Your task to perform on an android device: Open location settings Image 0: 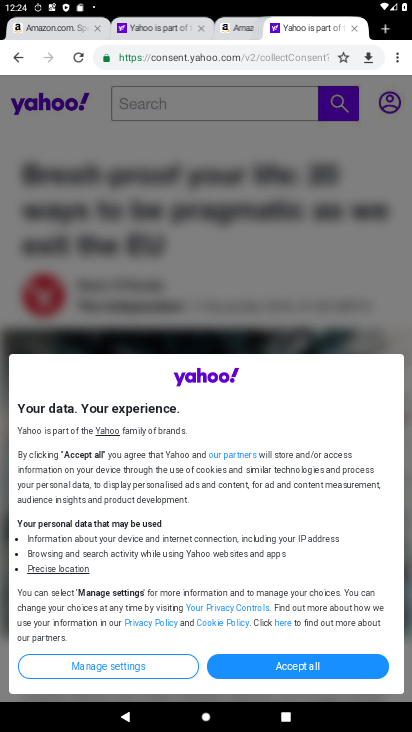
Step 0: press home button
Your task to perform on an android device: Open location settings Image 1: 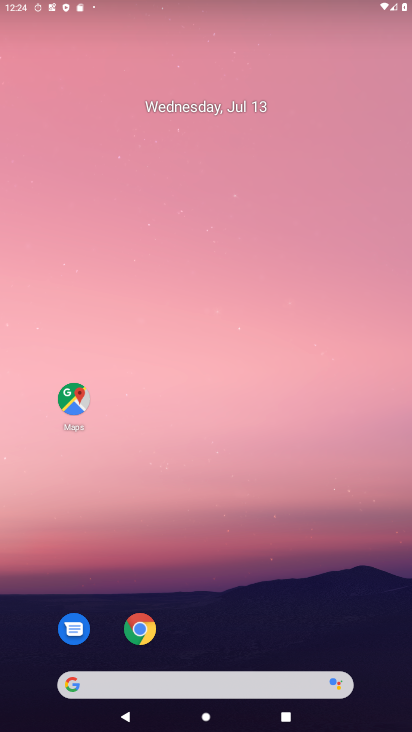
Step 1: drag from (201, 535) to (149, 100)
Your task to perform on an android device: Open location settings Image 2: 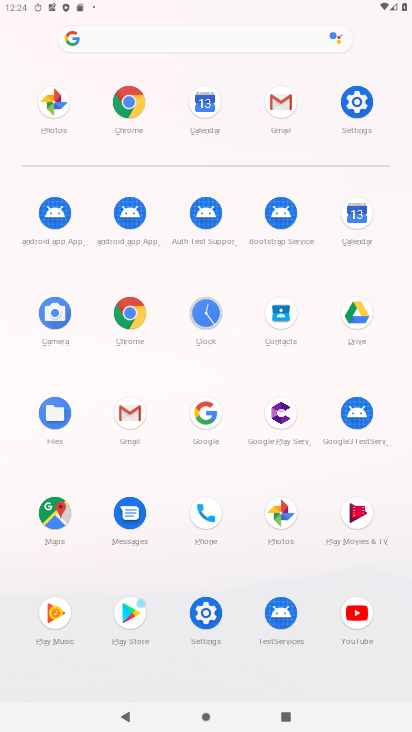
Step 2: click (361, 107)
Your task to perform on an android device: Open location settings Image 3: 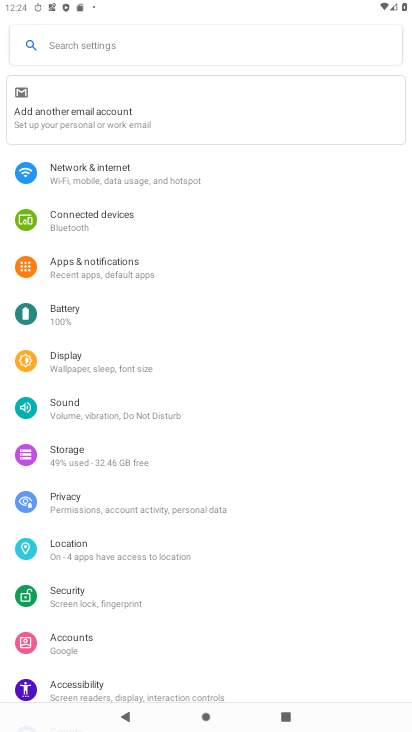
Step 3: click (121, 559)
Your task to perform on an android device: Open location settings Image 4: 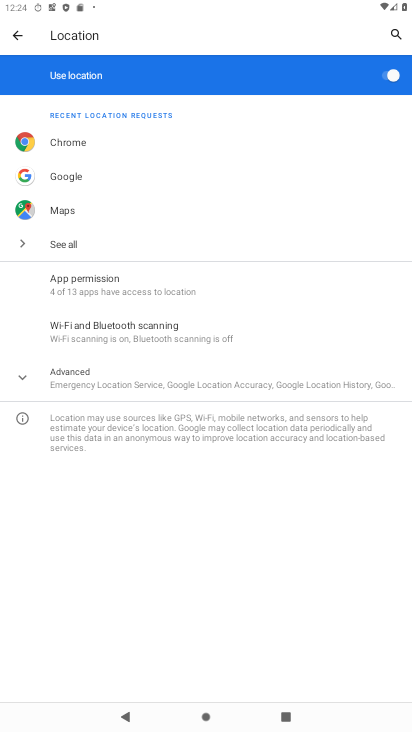
Step 4: task complete